Your task to perform on an android device: Go to Yahoo.com Image 0: 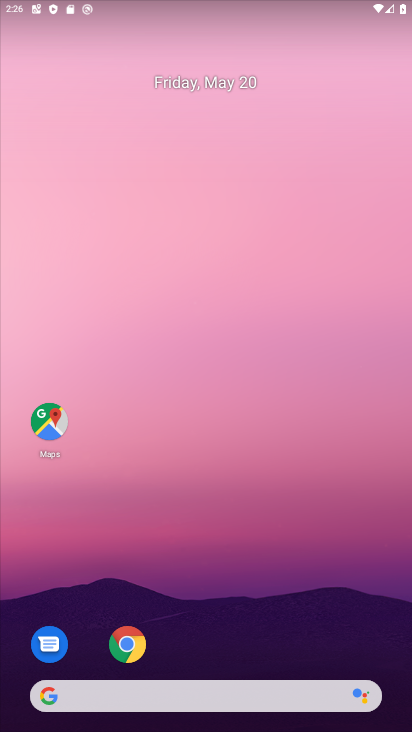
Step 0: click (138, 643)
Your task to perform on an android device: Go to Yahoo.com Image 1: 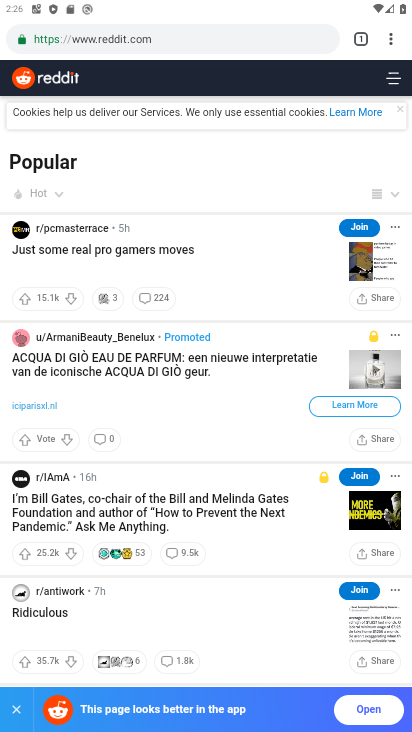
Step 1: click (264, 25)
Your task to perform on an android device: Go to Yahoo.com Image 2: 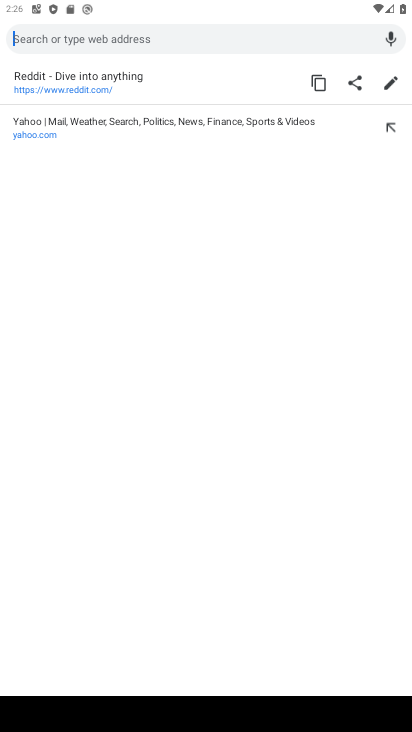
Step 2: type "yahoo.com"
Your task to perform on an android device: Go to Yahoo.com Image 3: 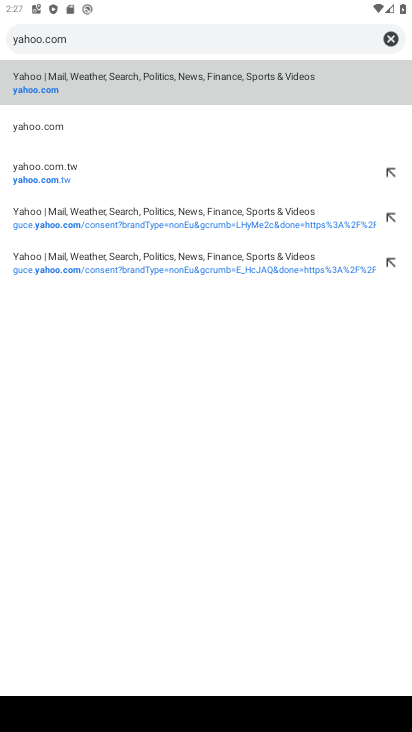
Step 3: click (98, 76)
Your task to perform on an android device: Go to Yahoo.com Image 4: 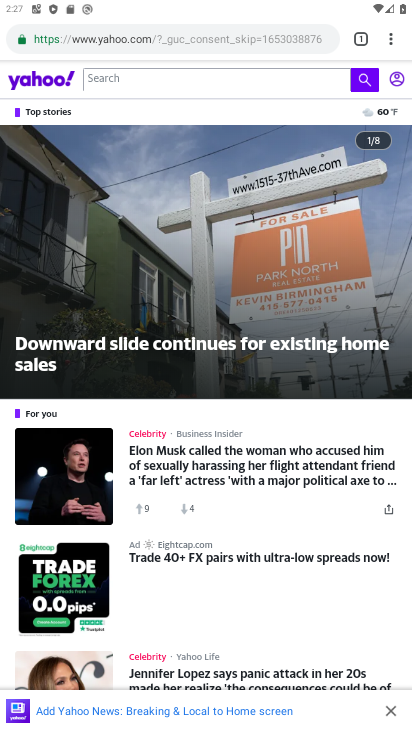
Step 4: task complete